Your task to perform on an android device: turn on priority inbox in the gmail app Image 0: 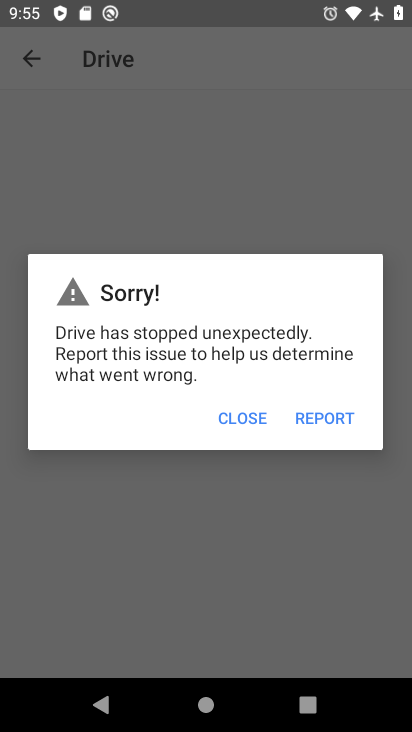
Step 0: click (242, 402)
Your task to perform on an android device: turn on priority inbox in the gmail app Image 1: 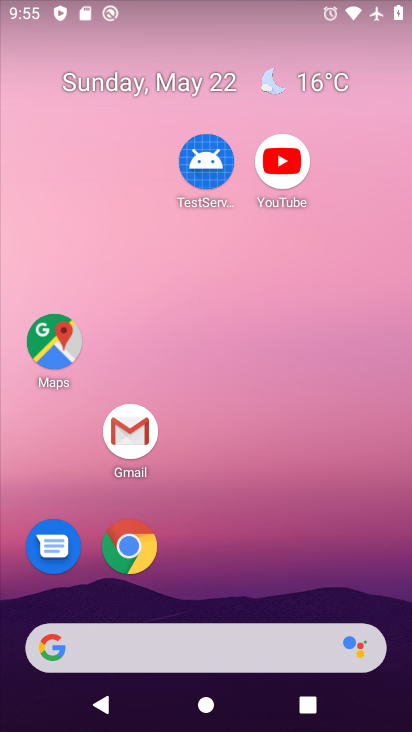
Step 1: drag from (219, 405) to (171, 56)
Your task to perform on an android device: turn on priority inbox in the gmail app Image 2: 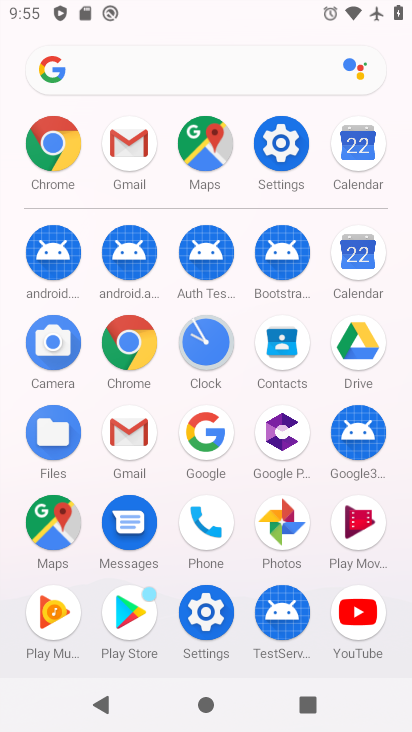
Step 2: click (124, 443)
Your task to perform on an android device: turn on priority inbox in the gmail app Image 3: 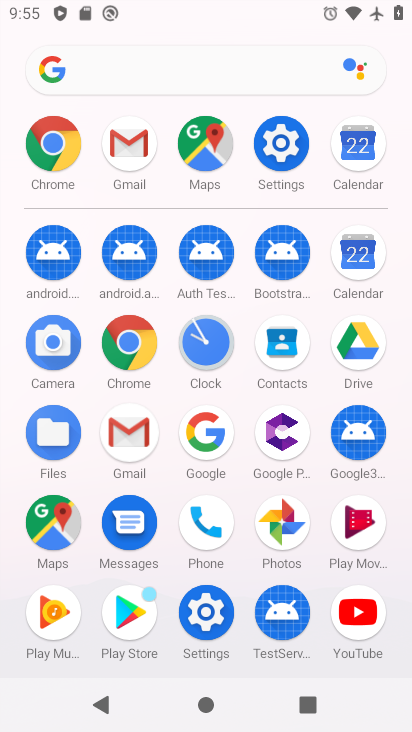
Step 3: click (124, 443)
Your task to perform on an android device: turn on priority inbox in the gmail app Image 4: 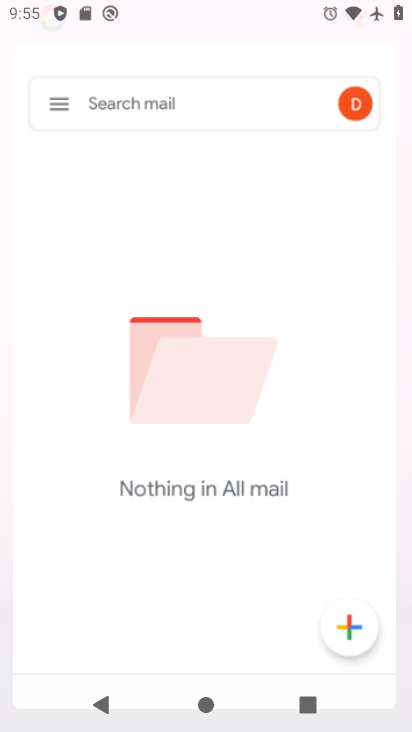
Step 4: click (124, 444)
Your task to perform on an android device: turn on priority inbox in the gmail app Image 5: 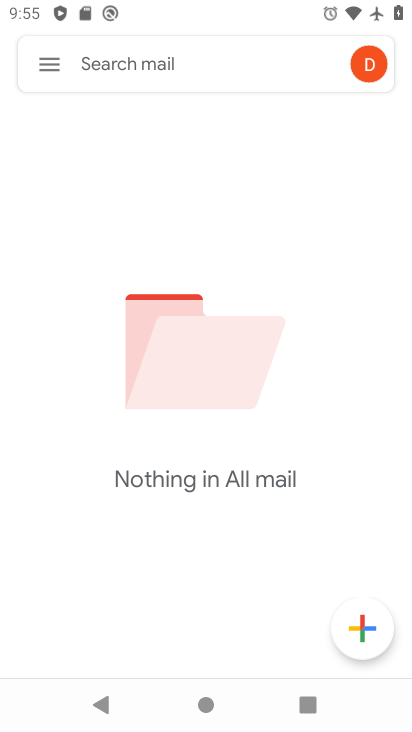
Step 5: click (46, 71)
Your task to perform on an android device: turn on priority inbox in the gmail app Image 6: 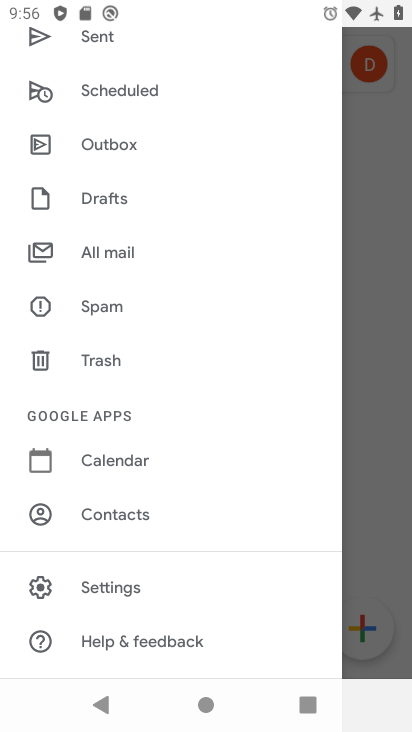
Step 6: click (114, 591)
Your task to perform on an android device: turn on priority inbox in the gmail app Image 7: 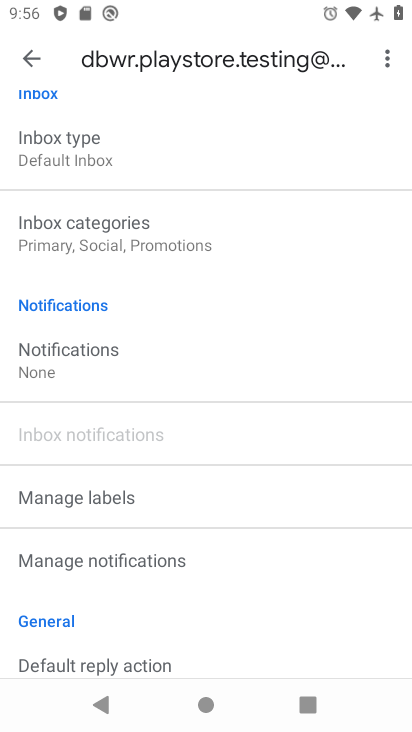
Step 7: click (66, 154)
Your task to perform on an android device: turn on priority inbox in the gmail app Image 8: 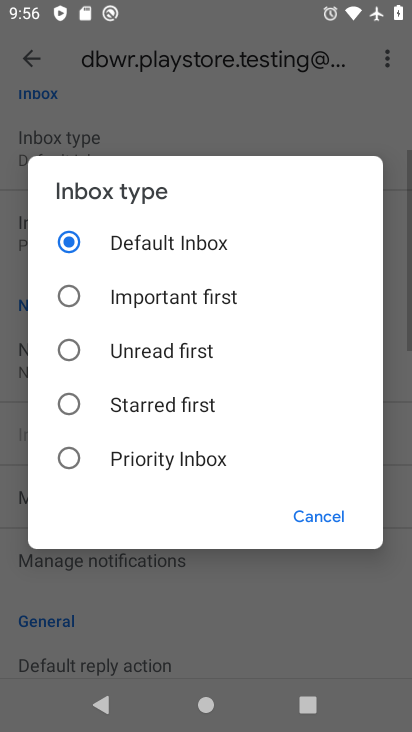
Step 8: click (69, 459)
Your task to perform on an android device: turn on priority inbox in the gmail app Image 9: 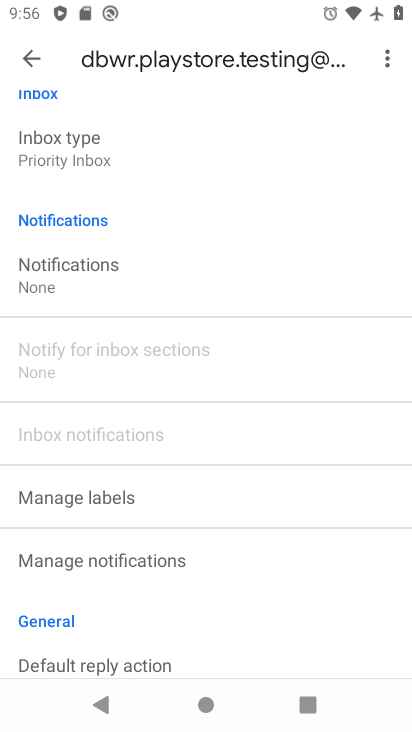
Step 9: task complete